Your task to perform on an android device: Open location settings Image 0: 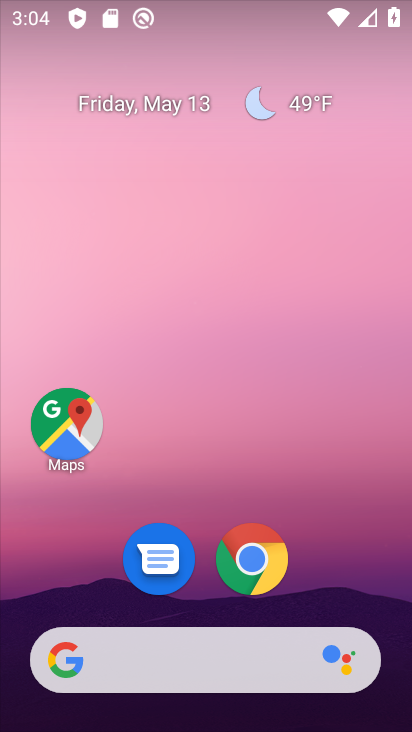
Step 0: drag from (396, 624) to (341, 96)
Your task to perform on an android device: Open location settings Image 1: 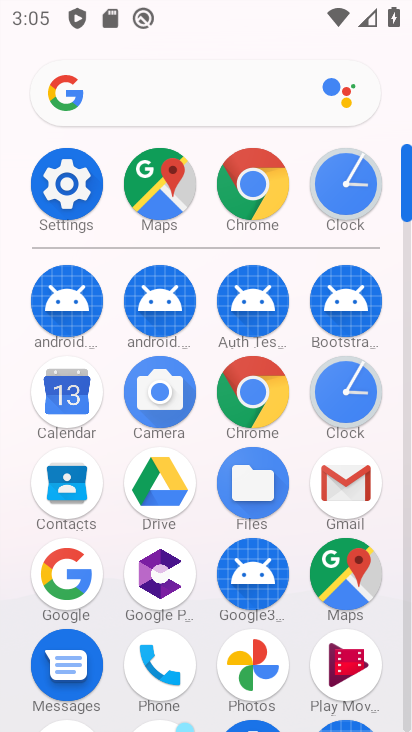
Step 1: click (405, 701)
Your task to perform on an android device: Open location settings Image 2: 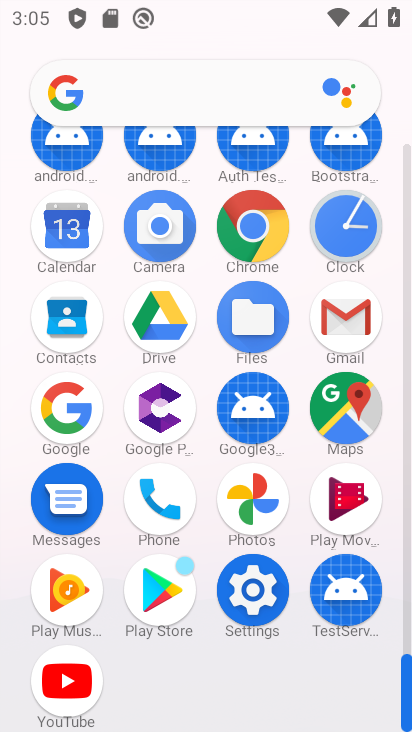
Step 2: click (265, 587)
Your task to perform on an android device: Open location settings Image 3: 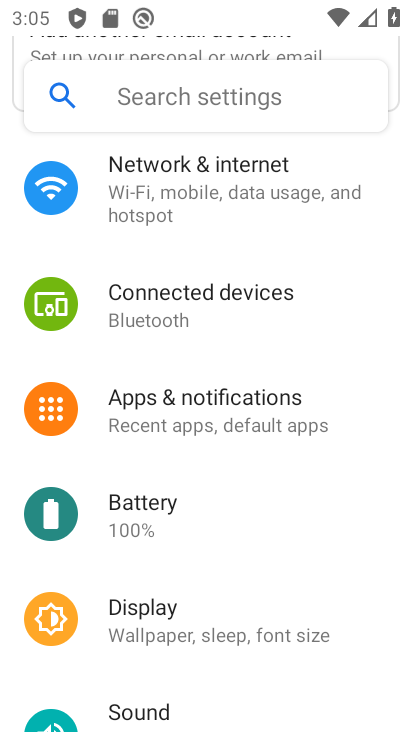
Step 3: drag from (333, 662) to (324, 150)
Your task to perform on an android device: Open location settings Image 4: 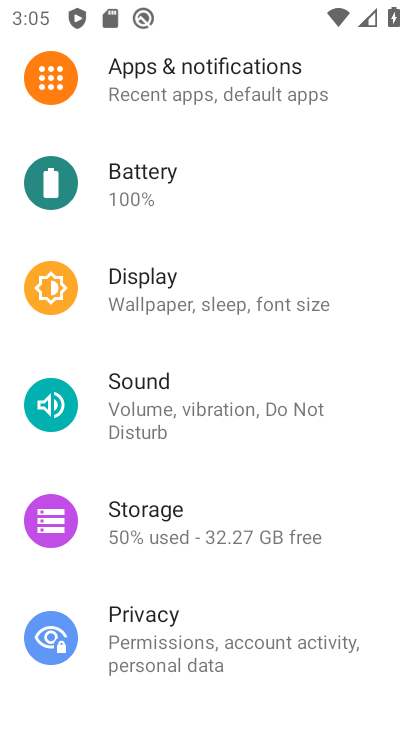
Step 4: drag from (346, 638) to (319, 154)
Your task to perform on an android device: Open location settings Image 5: 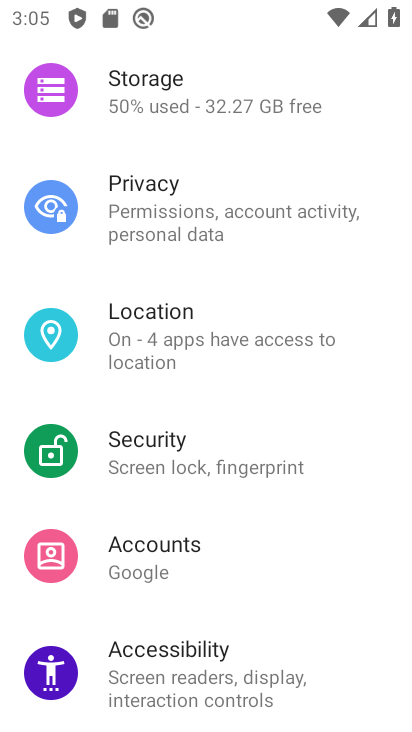
Step 5: click (143, 325)
Your task to perform on an android device: Open location settings Image 6: 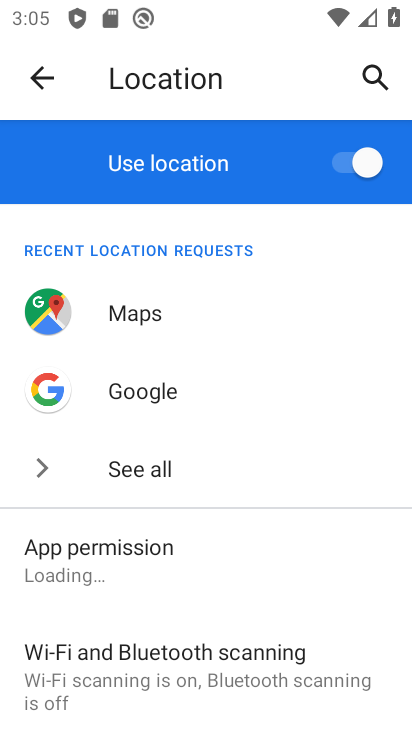
Step 6: drag from (152, 618) to (184, 176)
Your task to perform on an android device: Open location settings Image 7: 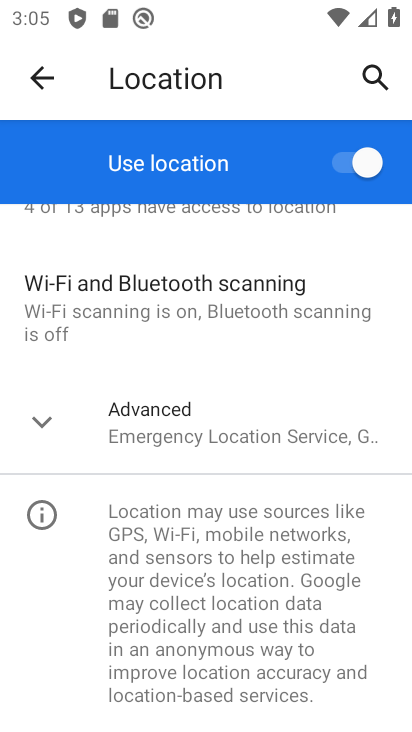
Step 7: click (42, 424)
Your task to perform on an android device: Open location settings Image 8: 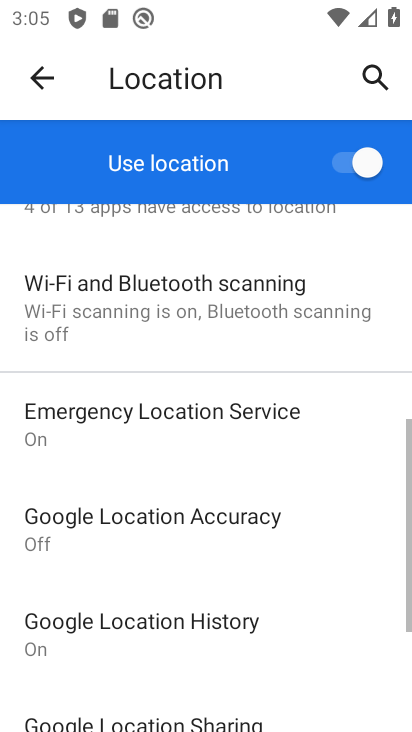
Step 8: task complete